Your task to perform on an android device: find snoozed emails in the gmail app Image 0: 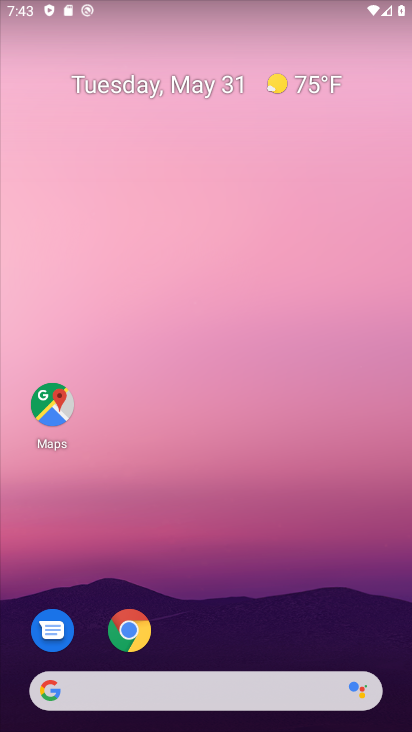
Step 0: drag from (242, 615) to (350, 83)
Your task to perform on an android device: find snoozed emails in the gmail app Image 1: 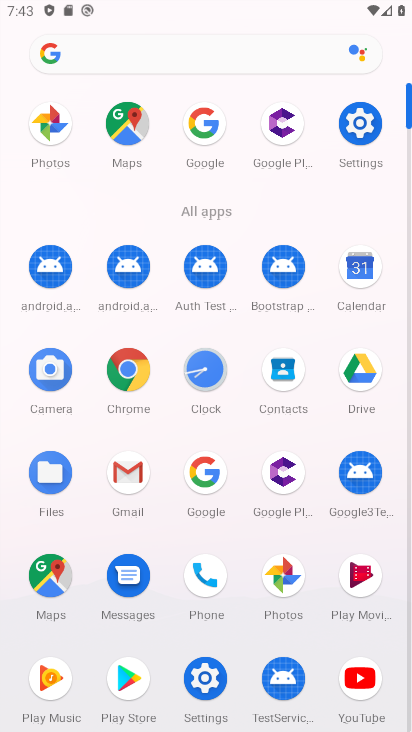
Step 1: drag from (201, 572) to (212, 357)
Your task to perform on an android device: find snoozed emails in the gmail app Image 2: 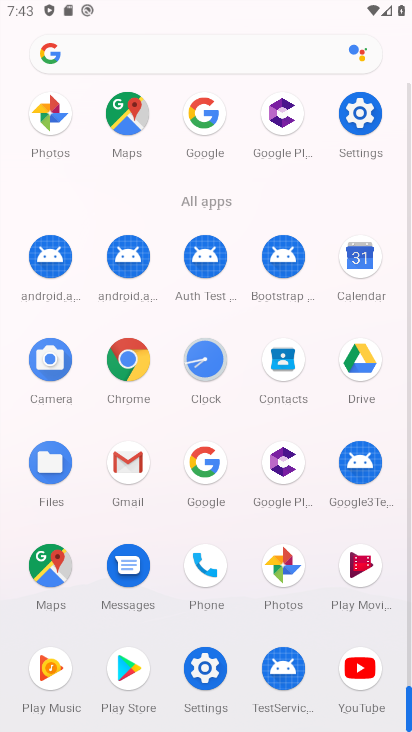
Step 2: click (132, 485)
Your task to perform on an android device: find snoozed emails in the gmail app Image 3: 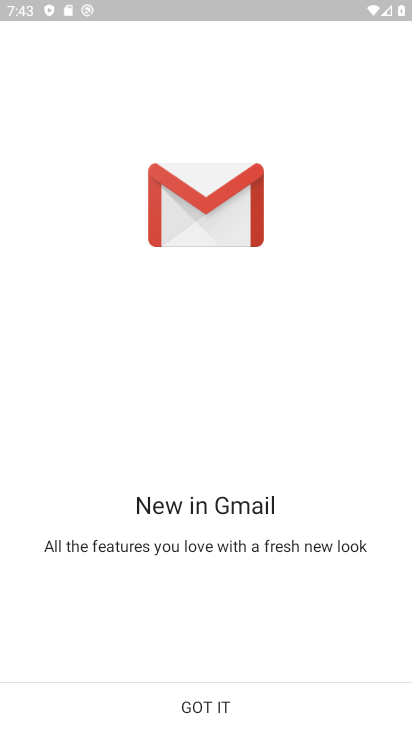
Step 3: click (171, 704)
Your task to perform on an android device: find snoozed emails in the gmail app Image 4: 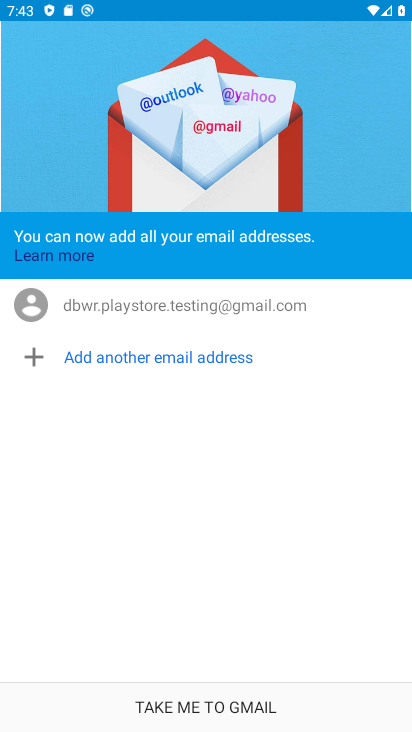
Step 4: click (187, 703)
Your task to perform on an android device: find snoozed emails in the gmail app Image 5: 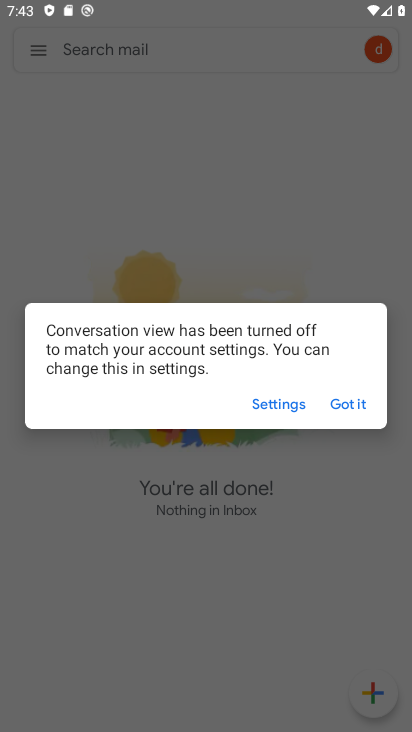
Step 5: click (349, 391)
Your task to perform on an android device: find snoozed emails in the gmail app Image 6: 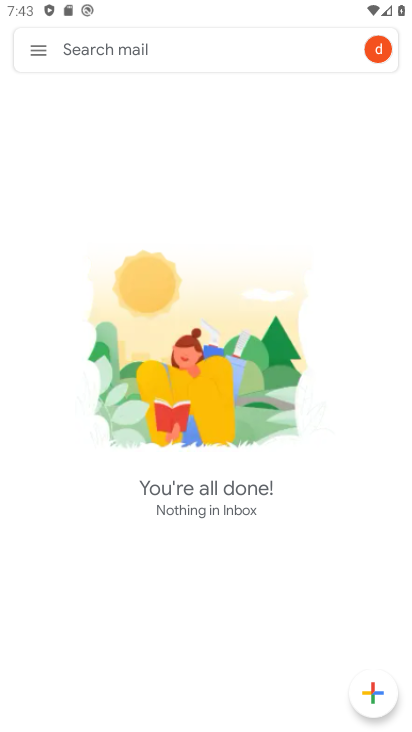
Step 6: click (35, 51)
Your task to perform on an android device: find snoozed emails in the gmail app Image 7: 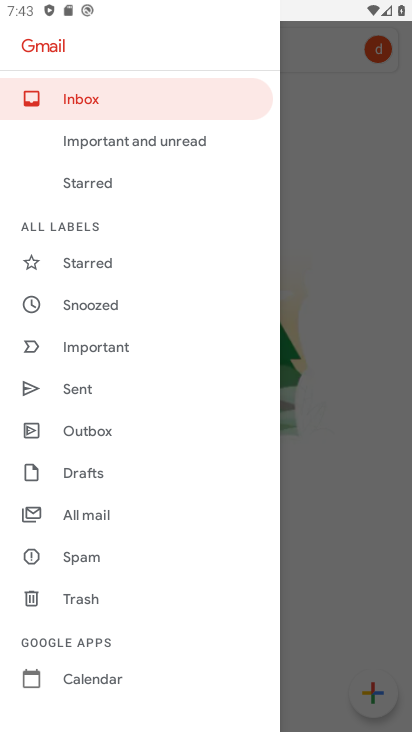
Step 7: click (94, 309)
Your task to perform on an android device: find snoozed emails in the gmail app Image 8: 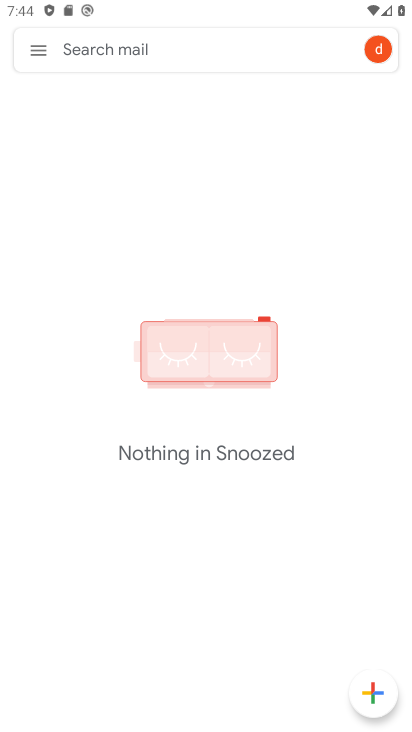
Step 8: task complete